Your task to perform on an android device: show emergency info Image 0: 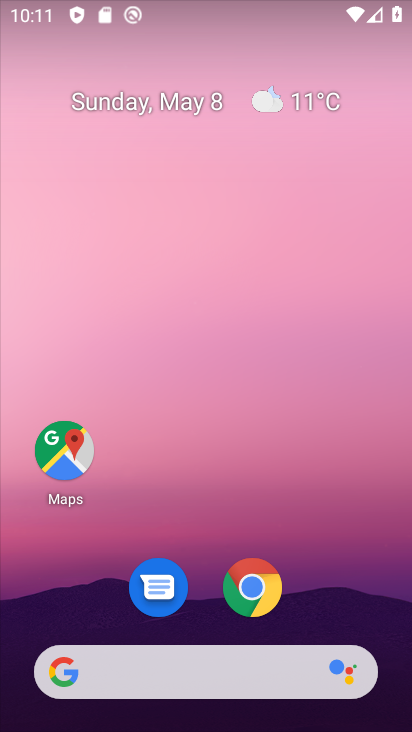
Step 0: drag from (128, 662) to (73, 19)
Your task to perform on an android device: show emergency info Image 1: 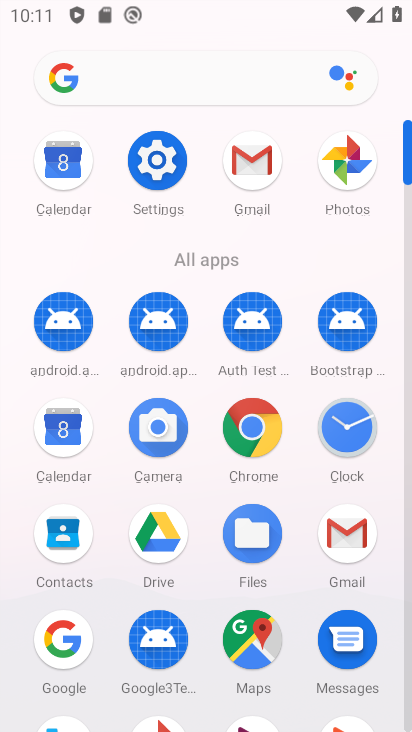
Step 1: click (156, 191)
Your task to perform on an android device: show emergency info Image 2: 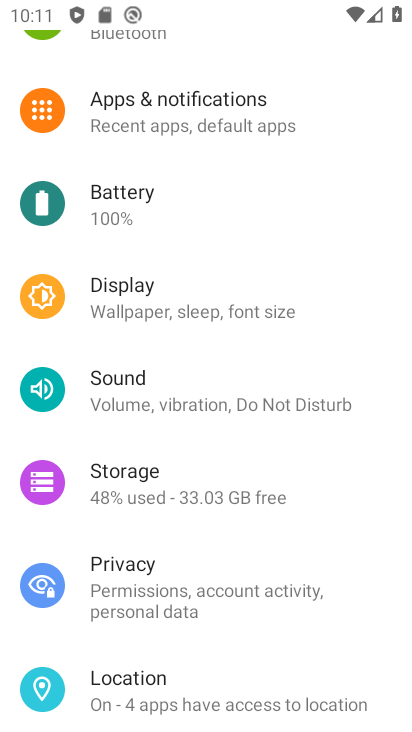
Step 2: drag from (68, 612) to (124, 201)
Your task to perform on an android device: show emergency info Image 3: 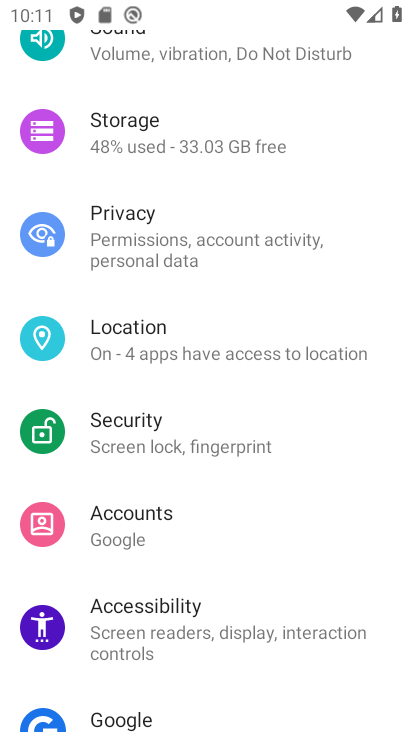
Step 3: drag from (124, 703) to (154, 298)
Your task to perform on an android device: show emergency info Image 4: 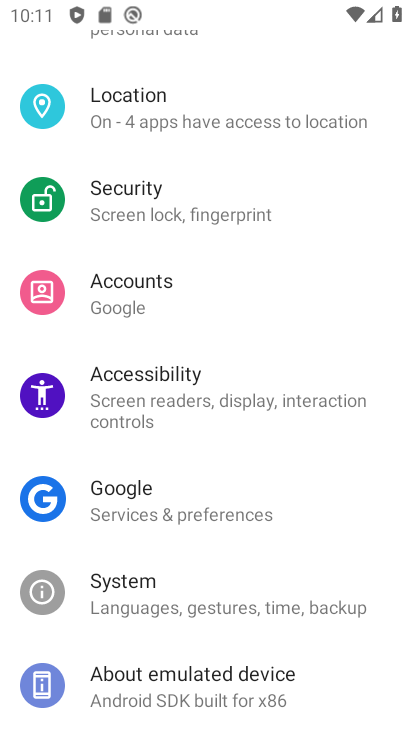
Step 4: click (123, 673)
Your task to perform on an android device: show emergency info Image 5: 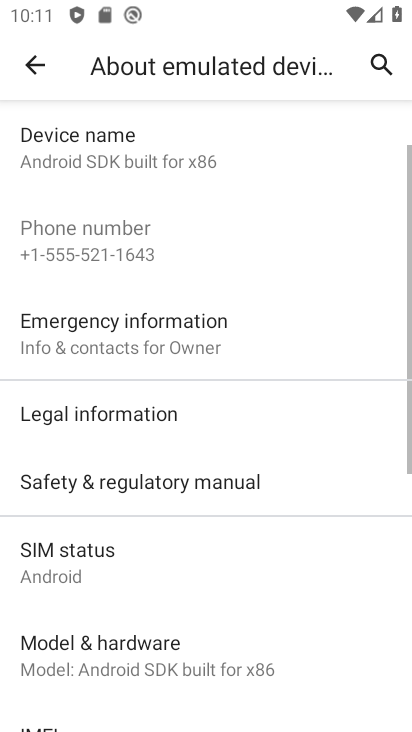
Step 5: click (93, 321)
Your task to perform on an android device: show emergency info Image 6: 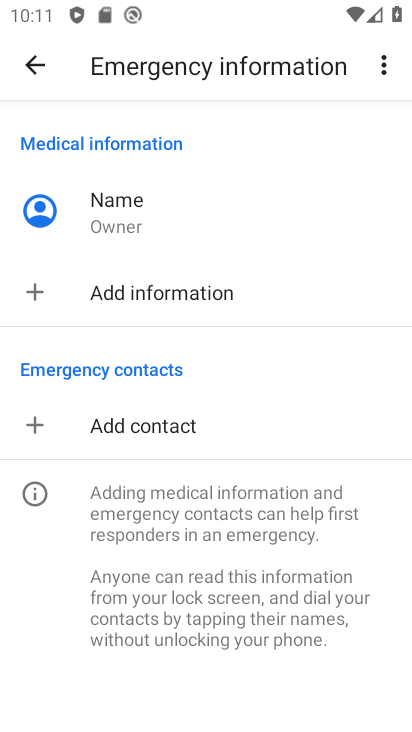
Step 6: task complete